Your task to perform on an android device: turn off priority inbox in the gmail app Image 0: 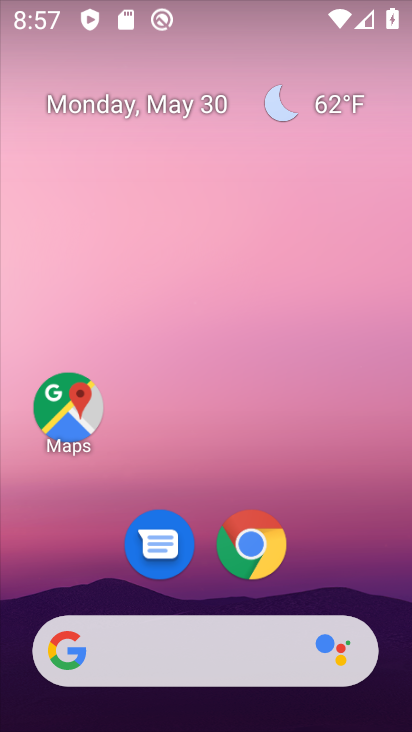
Step 0: drag from (351, 524) to (313, 194)
Your task to perform on an android device: turn off priority inbox in the gmail app Image 1: 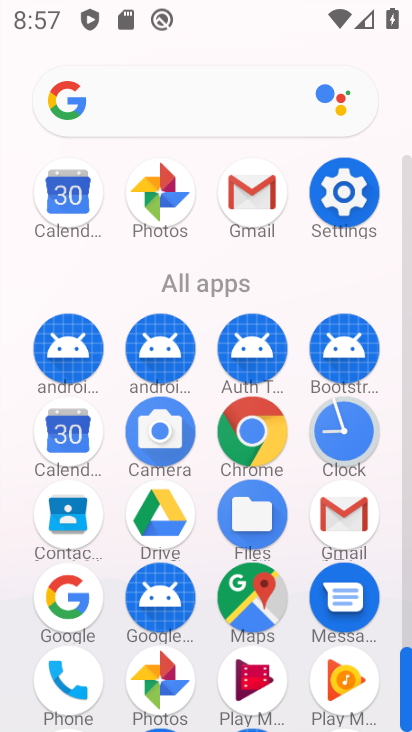
Step 1: click (250, 191)
Your task to perform on an android device: turn off priority inbox in the gmail app Image 2: 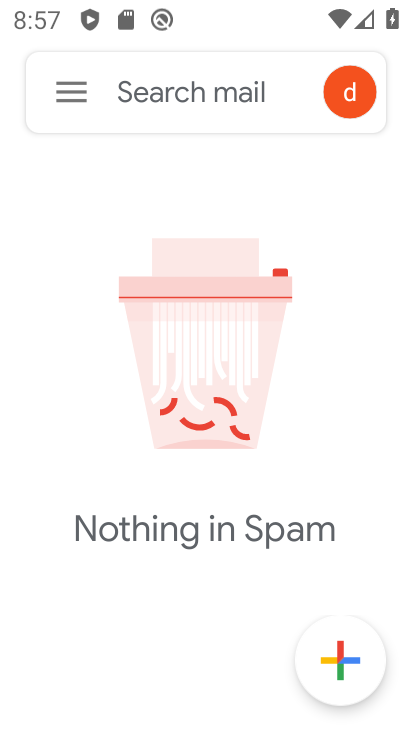
Step 2: click (73, 93)
Your task to perform on an android device: turn off priority inbox in the gmail app Image 3: 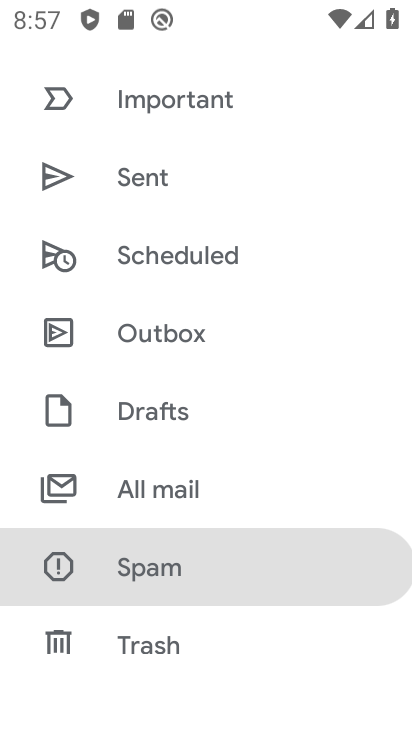
Step 3: drag from (149, 453) to (202, 358)
Your task to perform on an android device: turn off priority inbox in the gmail app Image 4: 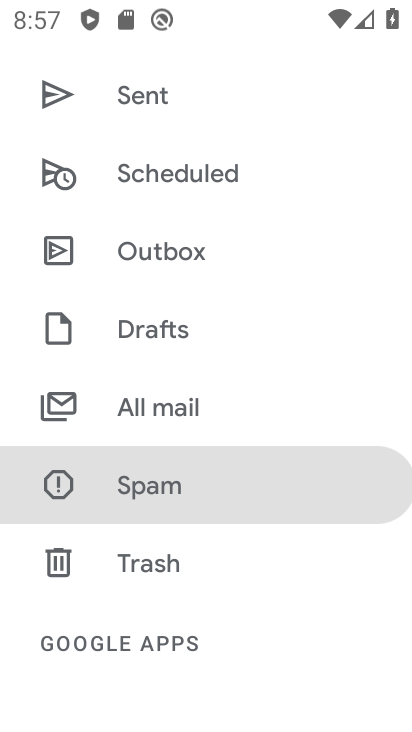
Step 4: drag from (240, 432) to (233, 389)
Your task to perform on an android device: turn off priority inbox in the gmail app Image 5: 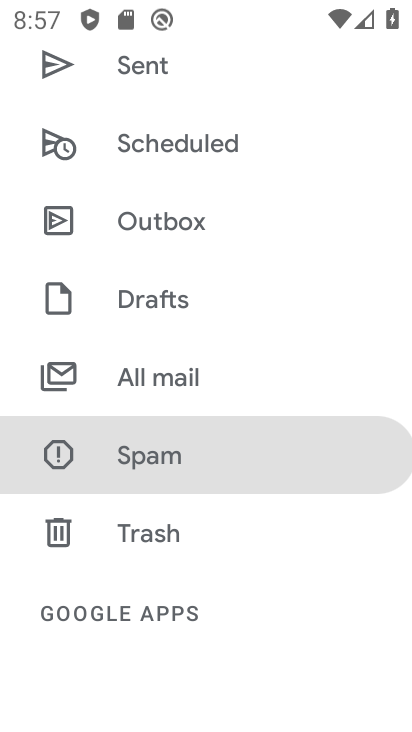
Step 5: drag from (203, 583) to (277, 450)
Your task to perform on an android device: turn off priority inbox in the gmail app Image 6: 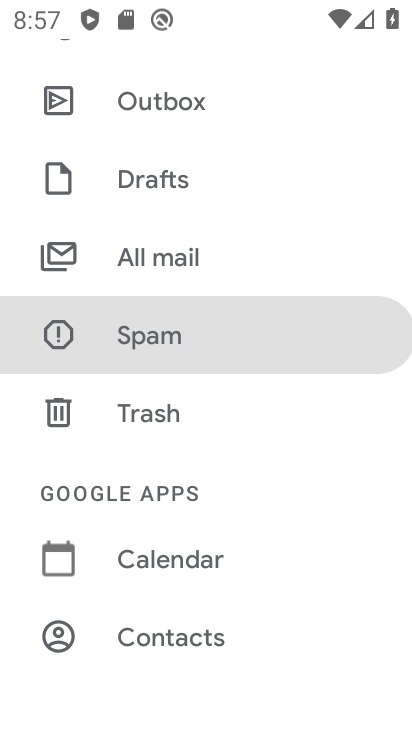
Step 6: drag from (180, 610) to (256, 508)
Your task to perform on an android device: turn off priority inbox in the gmail app Image 7: 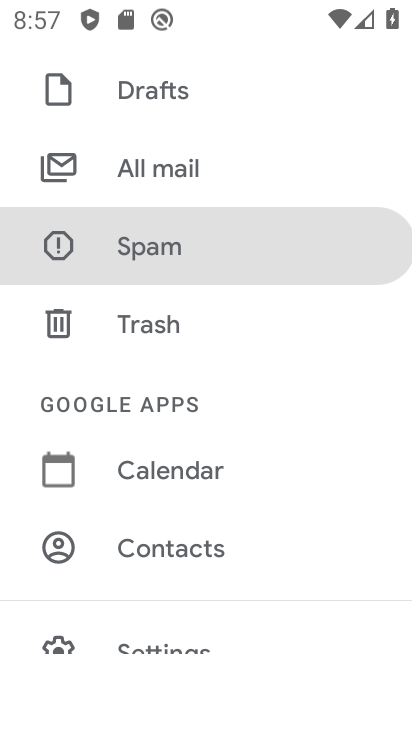
Step 7: drag from (190, 619) to (292, 505)
Your task to perform on an android device: turn off priority inbox in the gmail app Image 8: 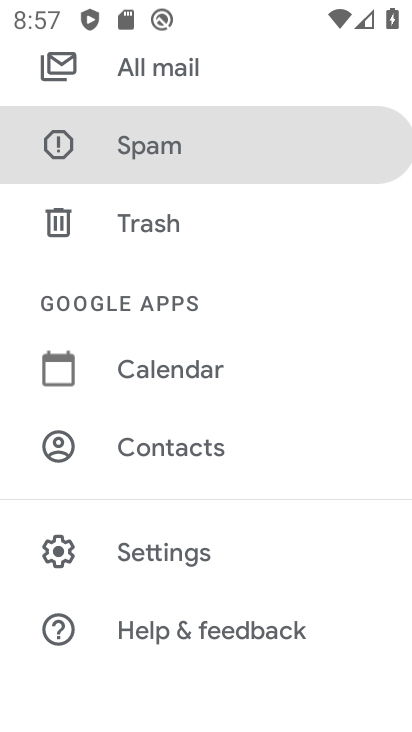
Step 8: click (199, 561)
Your task to perform on an android device: turn off priority inbox in the gmail app Image 9: 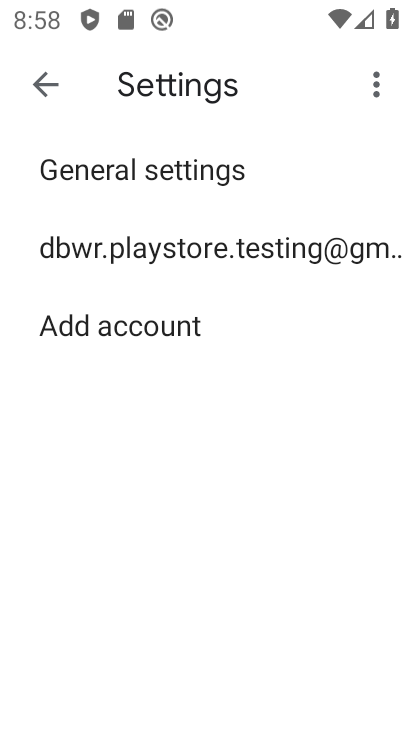
Step 9: click (214, 242)
Your task to perform on an android device: turn off priority inbox in the gmail app Image 10: 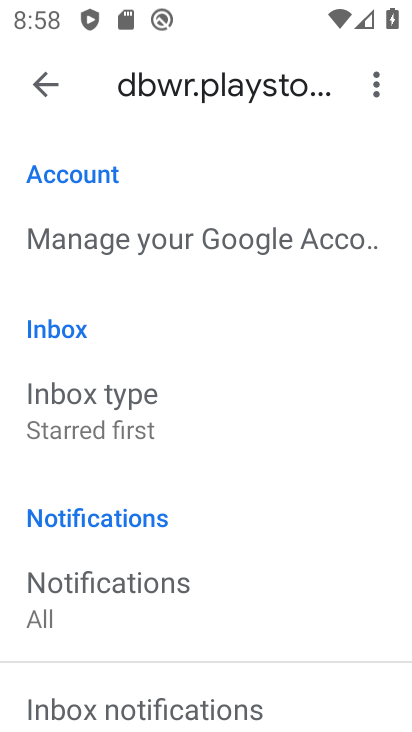
Step 10: click (133, 399)
Your task to perform on an android device: turn off priority inbox in the gmail app Image 11: 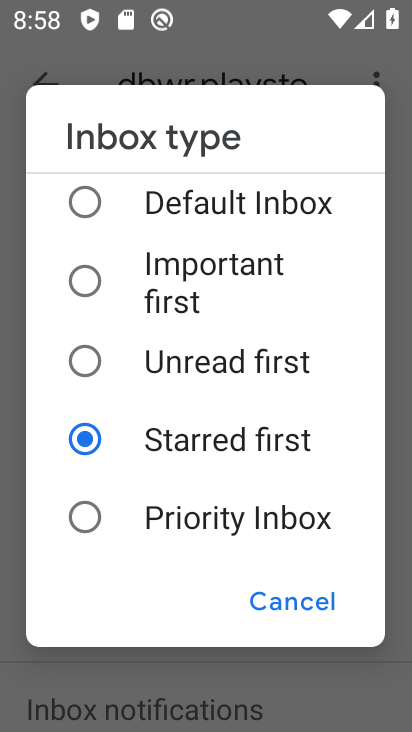
Step 11: click (86, 436)
Your task to perform on an android device: turn off priority inbox in the gmail app Image 12: 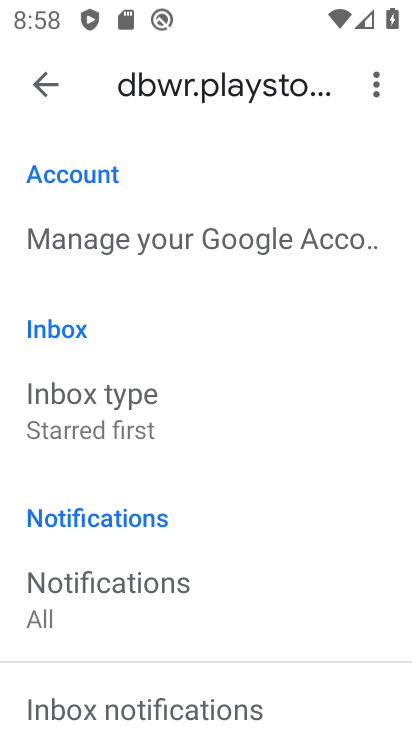
Step 12: task complete